Your task to perform on an android device: What's the weather going to be tomorrow? Image 0: 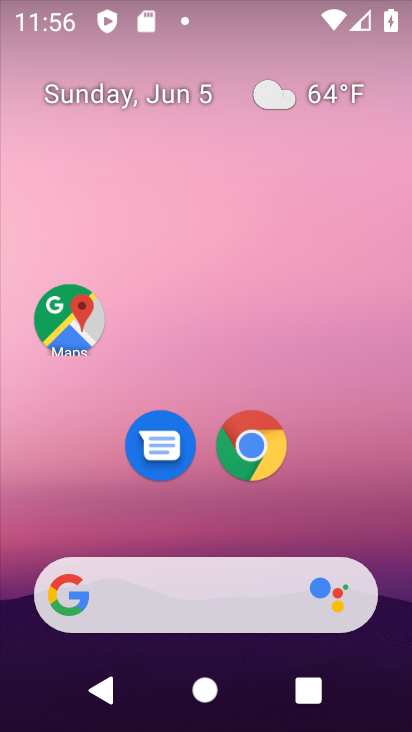
Step 0: drag from (12, 180) to (385, 179)
Your task to perform on an android device: What's the weather going to be tomorrow? Image 1: 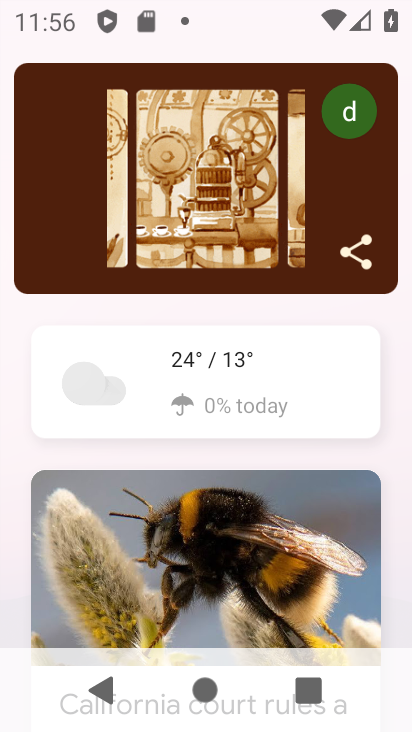
Step 1: drag from (317, 228) to (284, 701)
Your task to perform on an android device: What's the weather going to be tomorrow? Image 2: 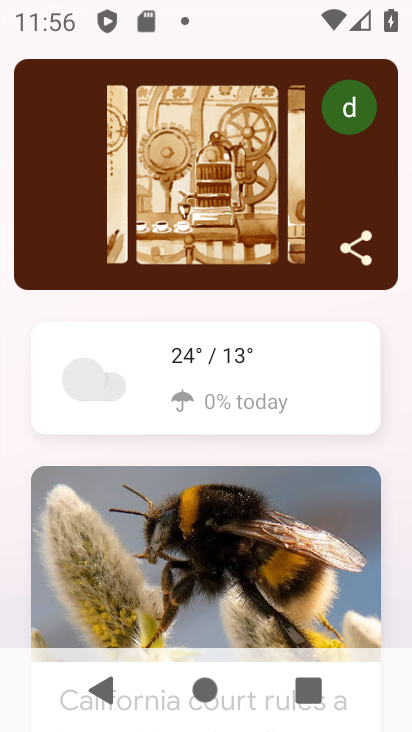
Step 2: drag from (257, 97) to (309, 637)
Your task to perform on an android device: What's the weather going to be tomorrow? Image 3: 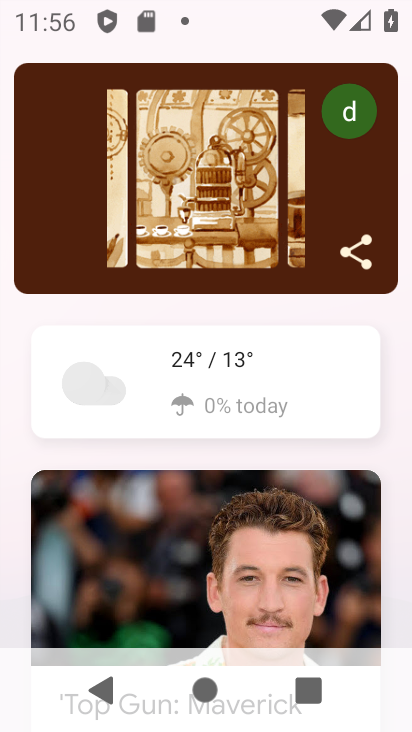
Step 3: press back button
Your task to perform on an android device: What's the weather going to be tomorrow? Image 4: 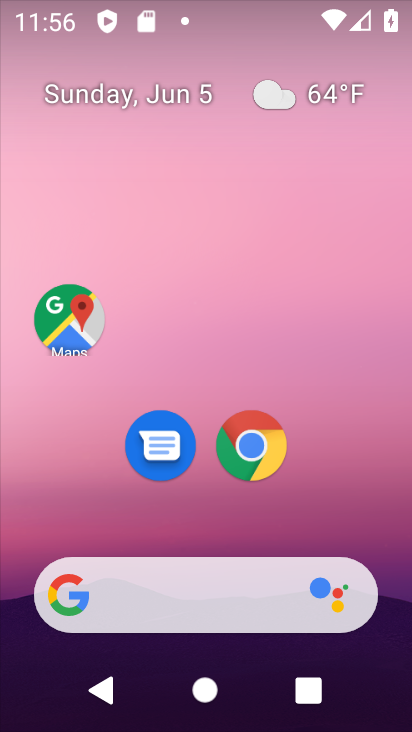
Step 4: drag from (264, 615) to (273, 11)
Your task to perform on an android device: What's the weather going to be tomorrow? Image 5: 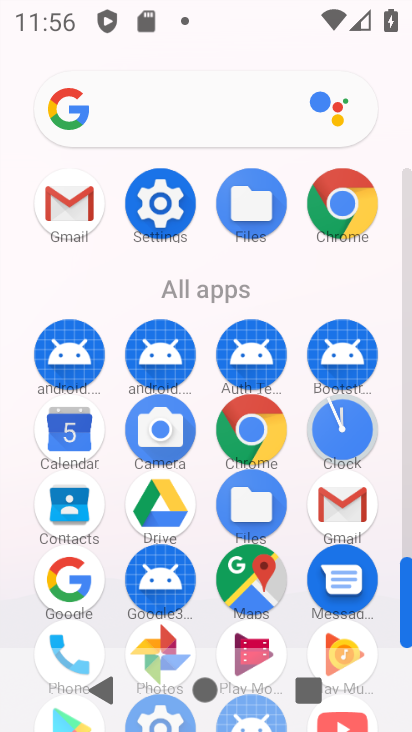
Step 5: click (226, 429)
Your task to perform on an android device: What's the weather going to be tomorrow? Image 6: 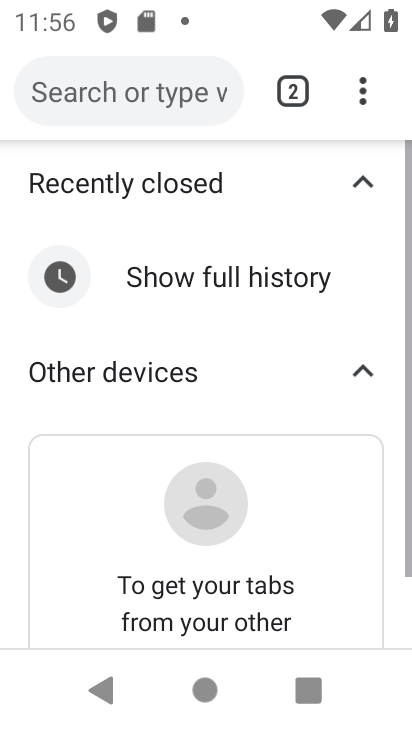
Step 6: click (131, 77)
Your task to perform on an android device: What's the weather going to be tomorrow? Image 7: 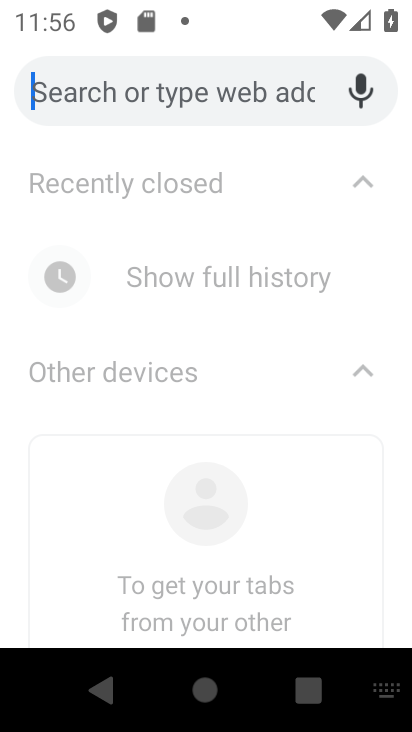
Step 7: press home button
Your task to perform on an android device: What's the weather going to be tomorrow? Image 8: 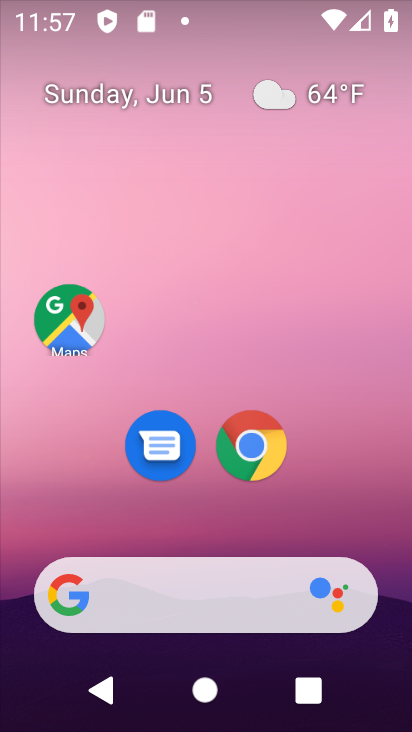
Step 8: drag from (292, 579) to (360, 135)
Your task to perform on an android device: What's the weather going to be tomorrow? Image 9: 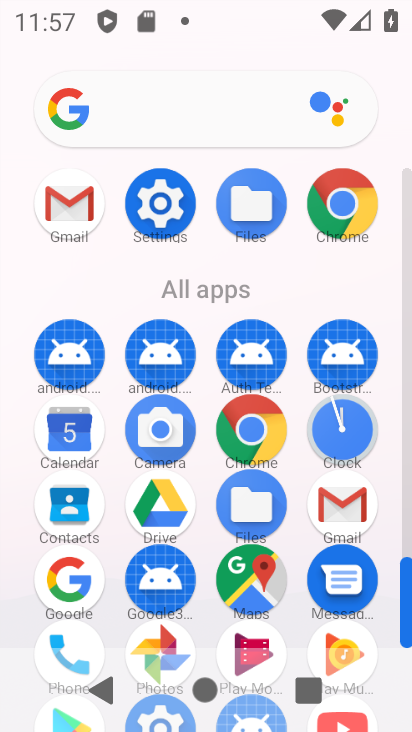
Step 9: click (32, 606)
Your task to perform on an android device: What's the weather going to be tomorrow? Image 10: 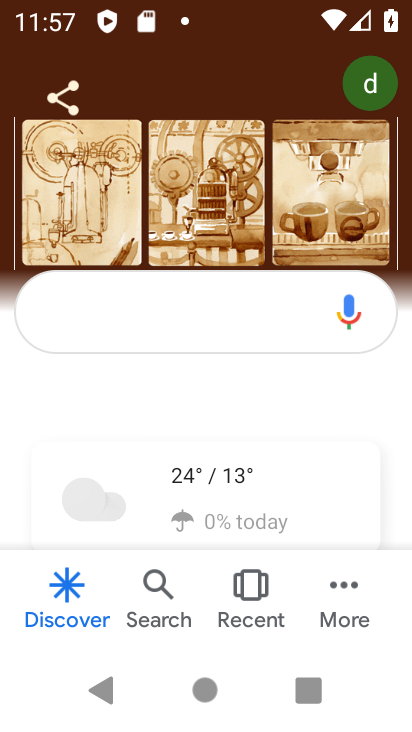
Step 10: click (139, 308)
Your task to perform on an android device: What's the weather going to be tomorrow? Image 11: 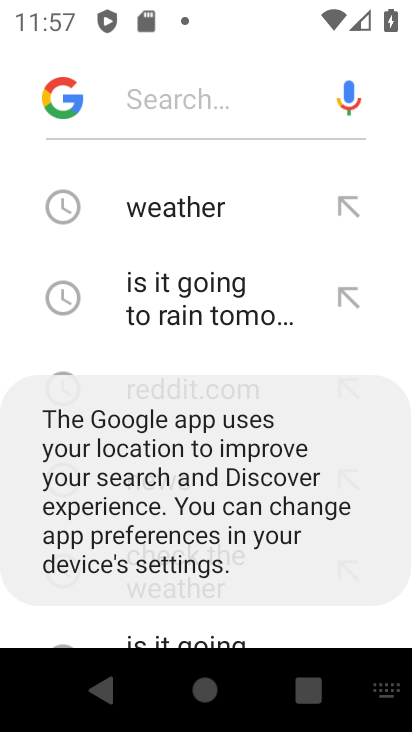
Step 11: press back button
Your task to perform on an android device: What's the weather going to be tomorrow? Image 12: 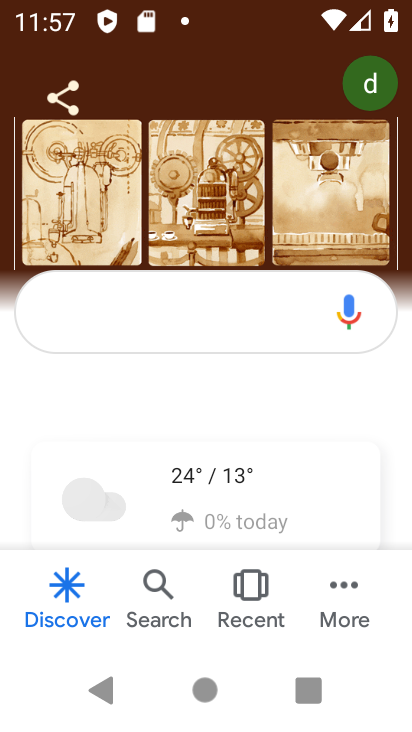
Step 12: click (197, 507)
Your task to perform on an android device: What's the weather going to be tomorrow? Image 13: 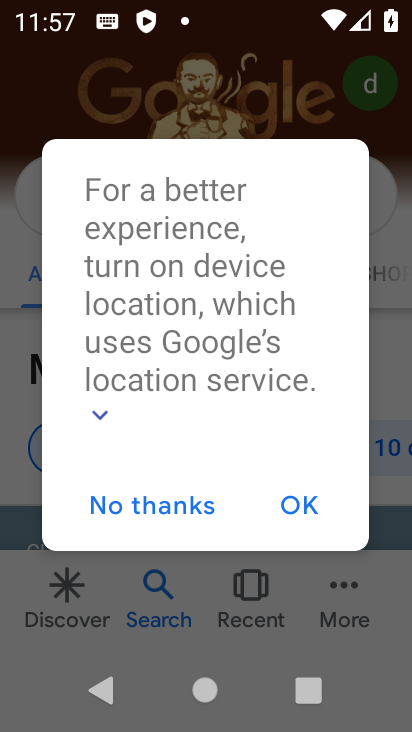
Step 13: task complete